Your task to perform on an android device: check data usage Image 0: 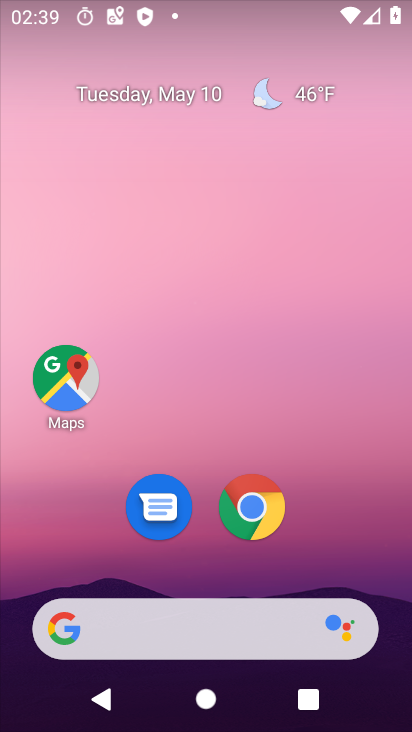
Step 0: drag from (273, 654) to (300, 47)
Your task to perform on an android device: check data usage Image 1: 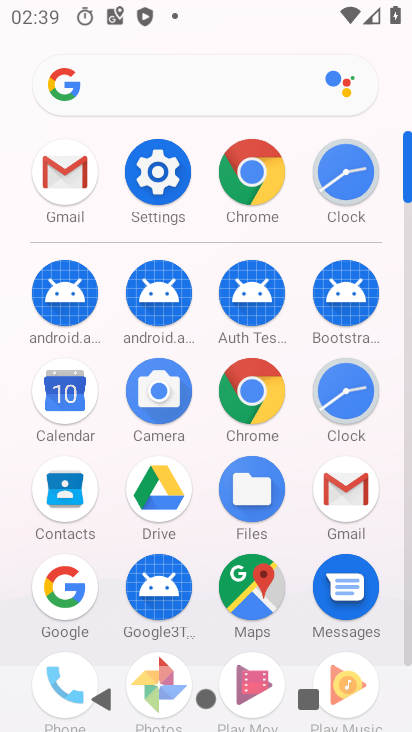
Step 1: click (174, 174)
Your task to perform on an android device: check data usage Image 2: 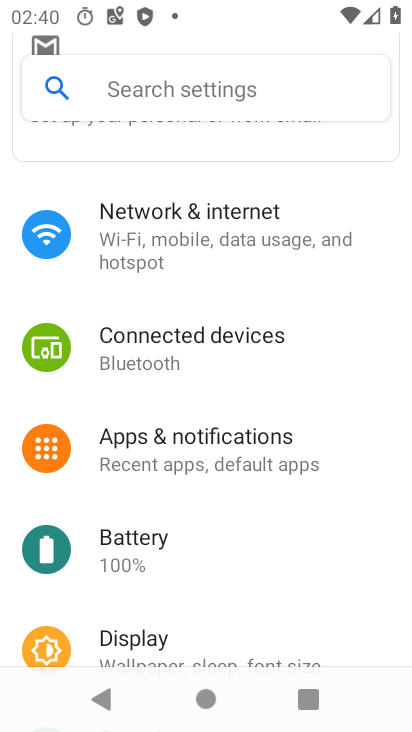
Step 2: click (171, 91)
Your task to perform on an android device: check data usage Image 3: 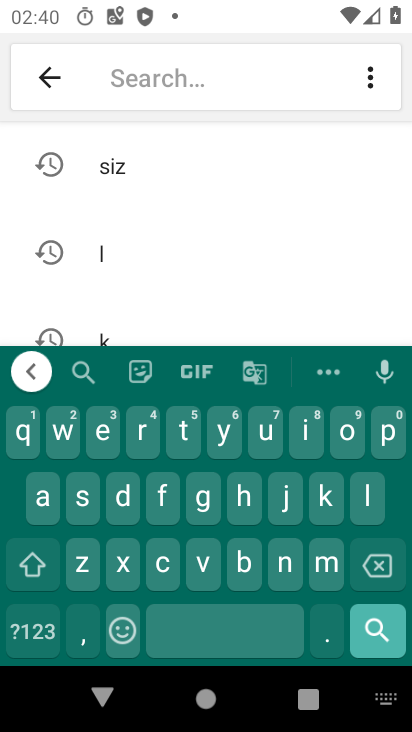
Step 3: click (126, 495)
Your task to perform on an android device: check data usage Image 4: 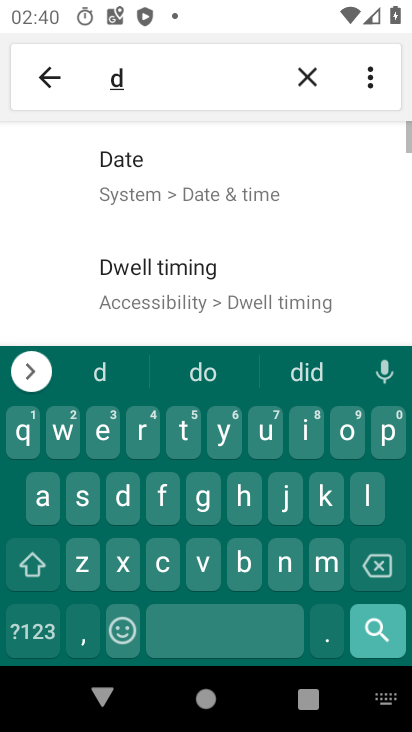
Step 4: click (40, 498)
Your task to perform on an android device: check data usage Image 5: 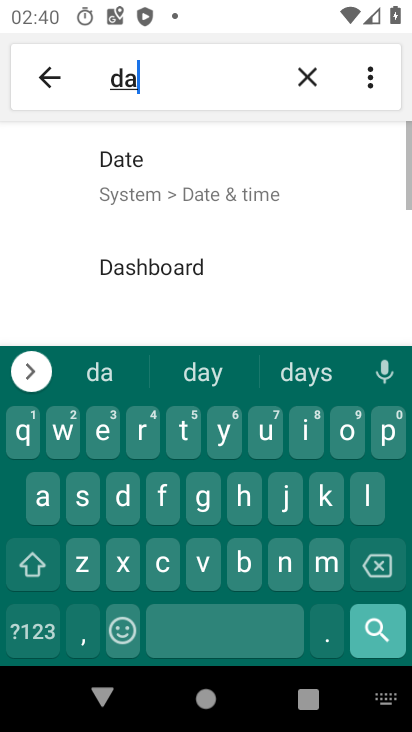
Step 5: click (181, 448)
Your task to perform on an android device: check data usage Image 6: 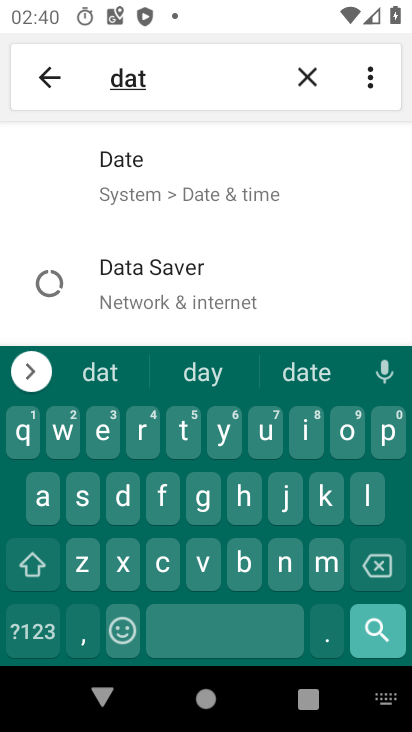
Step 6: click (36, 507)
Your task to perform on an android device: check data usage Image 7: 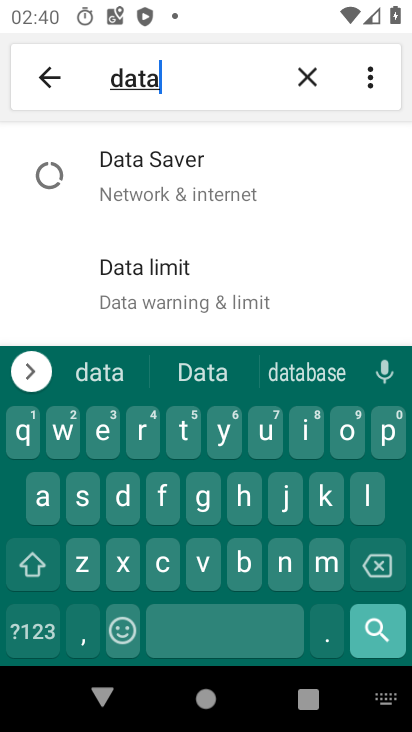
Step 7: click (205, 627)
Your task to perform on an android device: check data usage Image 8: 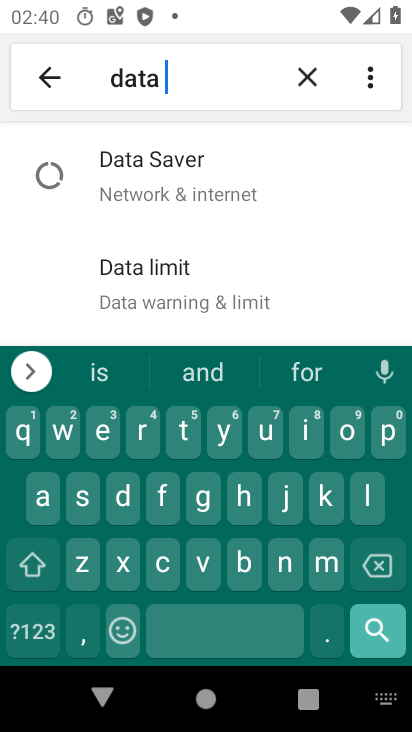
Step 8: click (266, 441)
Your task to perform on an android device: check data usage Image 9: 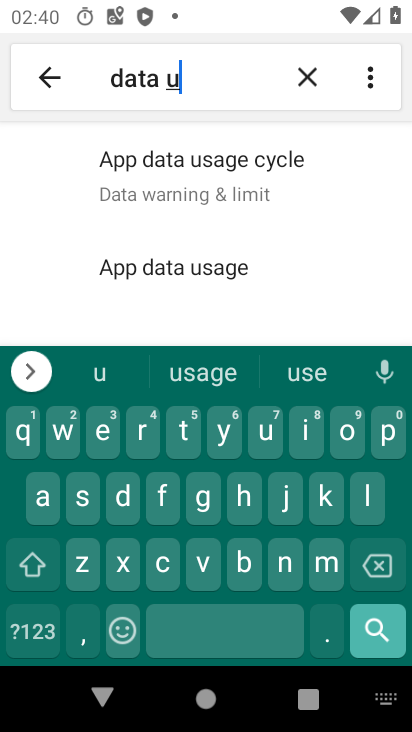
Step 9: click (165, 284)
Your task to perform on an android device: check data usage Image 10: 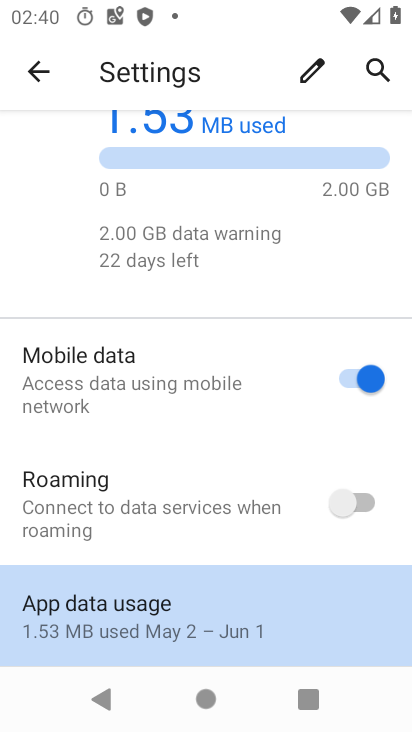
Step 10: click (126, 628)
Your task to perform on an android device: check data usage Image 11: 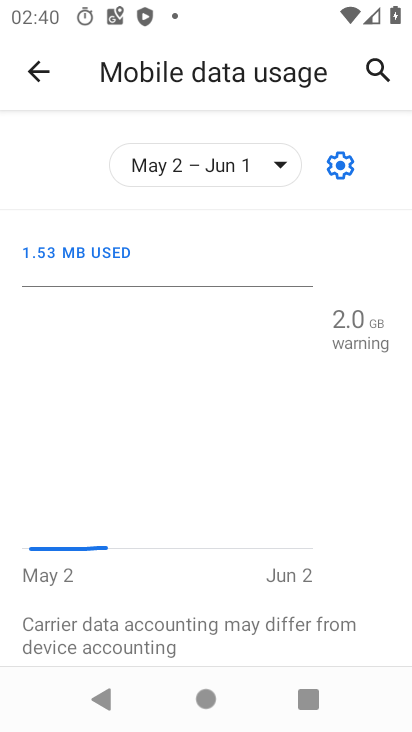
Step 11: task complete